Your task to perform on an android device: Open network settings Image 0: 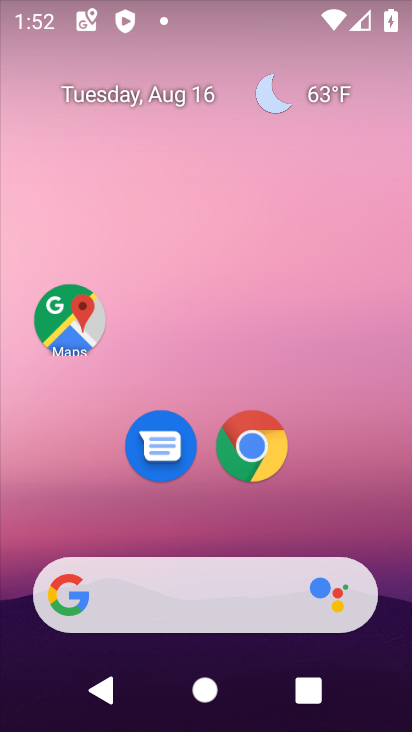
Step 0: click (250, 440)
Your task to perform on an android device: Open network settings Image 1: 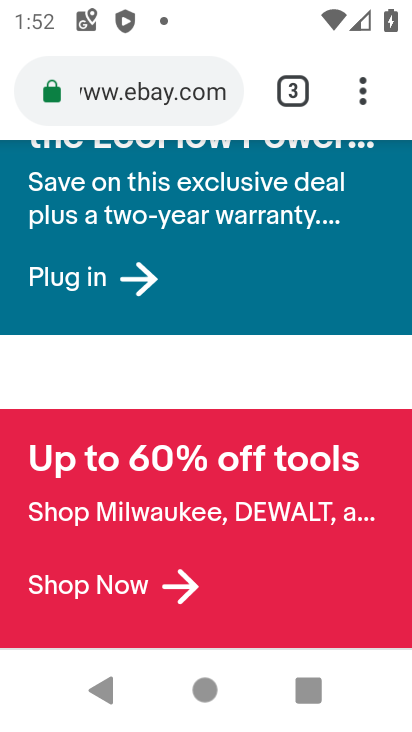
Step 1: press home button
Your task to perform on an android device: Open network settings Image 2: 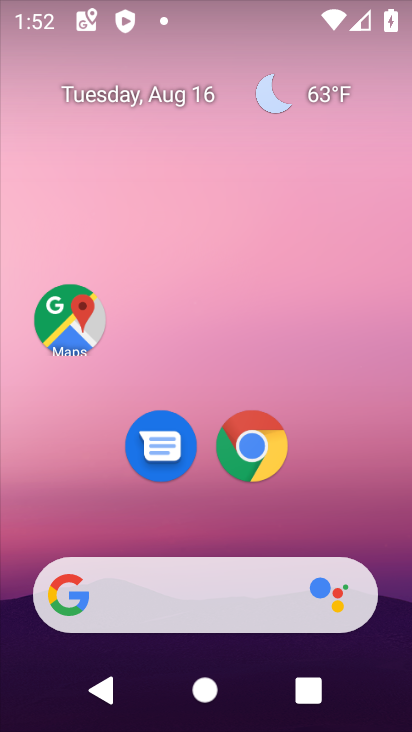
Step 2: drag from (201, 538) to (230, 69)
Your task to perform on an android device: Open network settings Image 3: 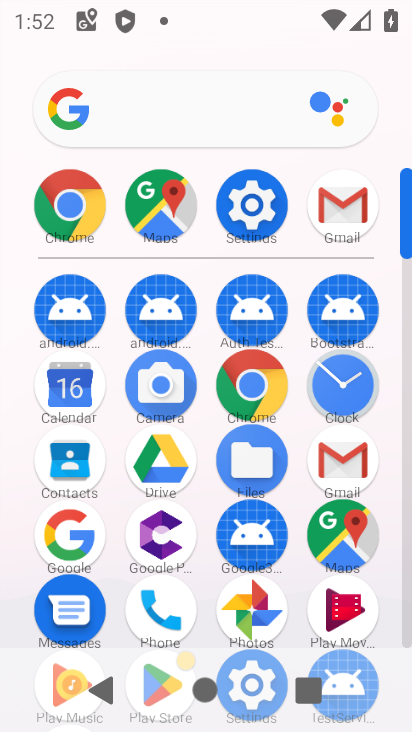
Step 3: click (250, 201)
Your task to perform on an android device: Open network settings Image 4: 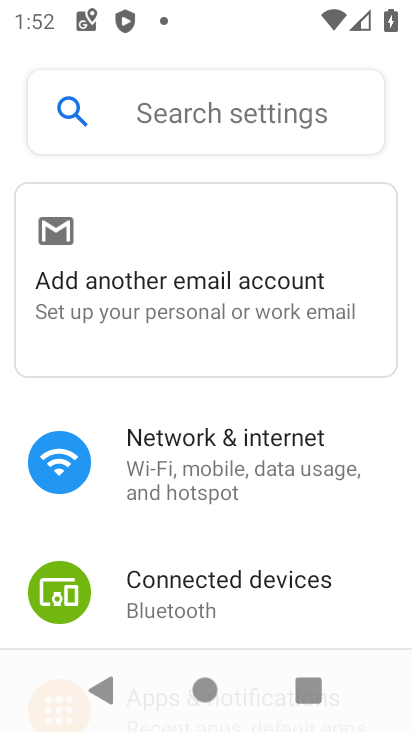
Step 4: click (97, 450)
Your task to perform on an android device: Open network settings Image 5: 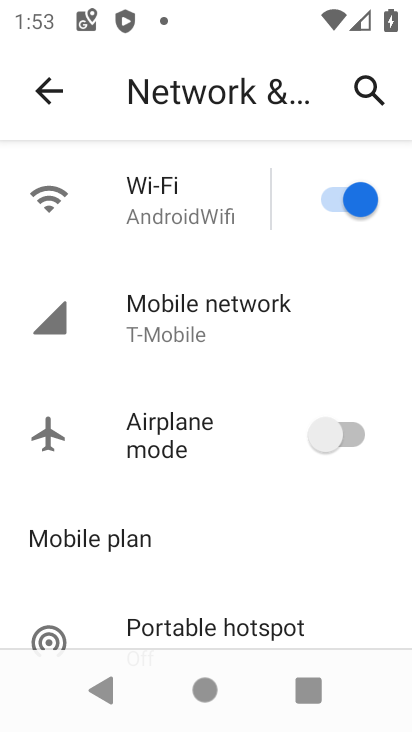
Step 5: drag from (181, 601) to (207, 159)
Your task to perform on an android device: Open network settings Image 6: 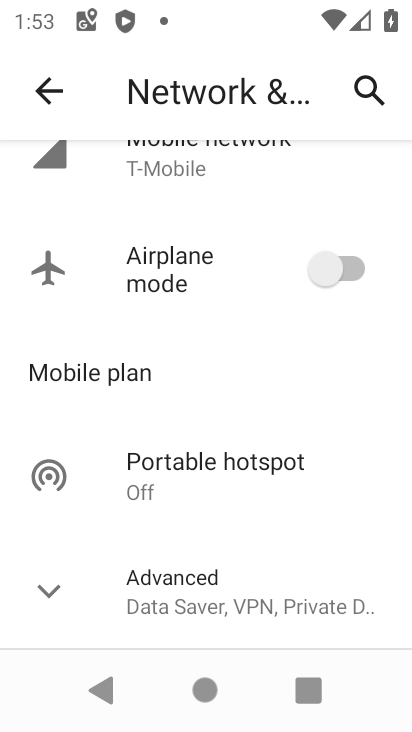
Step 6: click (53, 585)
Your task to perform on an android device: Open network settings Image 7: 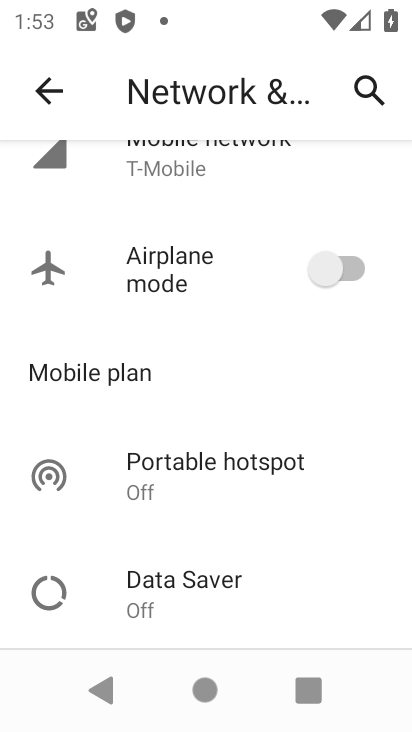
Step 7: task complete